Your task to perform on an android device: show emergency info Image 0: 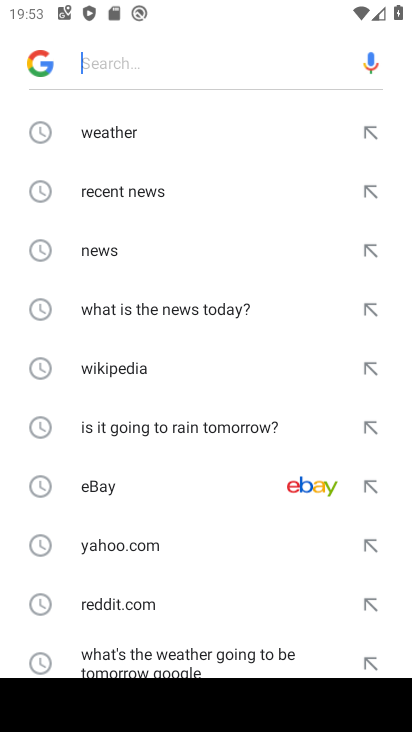
Step 0: press home button
Your task to perform on an android device: show emergency info Image 1: 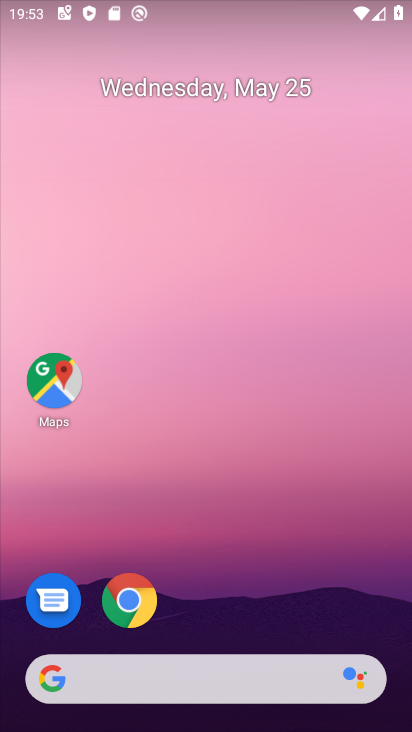
Step 1: drag from (358, 580) to (348, 175)
Your task to perform on an android device: show emergency info Image 2: 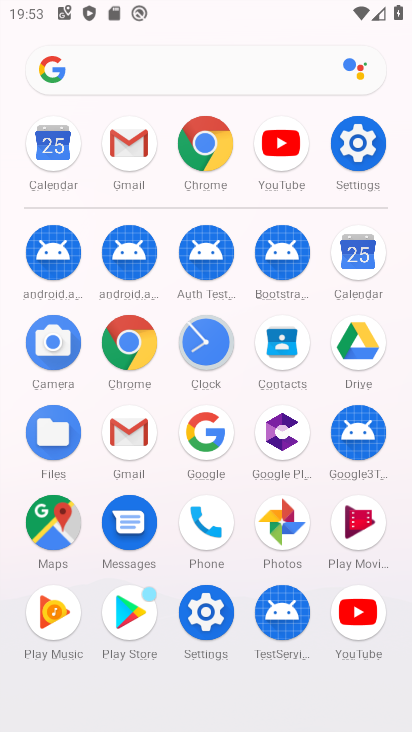
Step 2: click (387, 142)
Your task to perform on an android device: show emergency info Image 3: 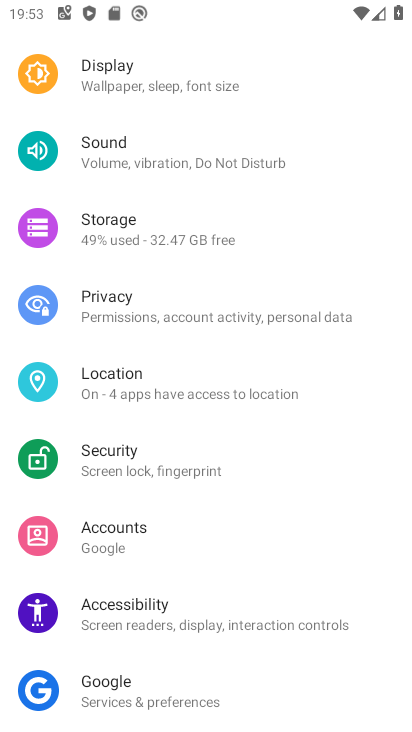
Step 3: drag from (239, 597) to (235, 306)
Your task to perform on an android device: show emergency info Image 4: 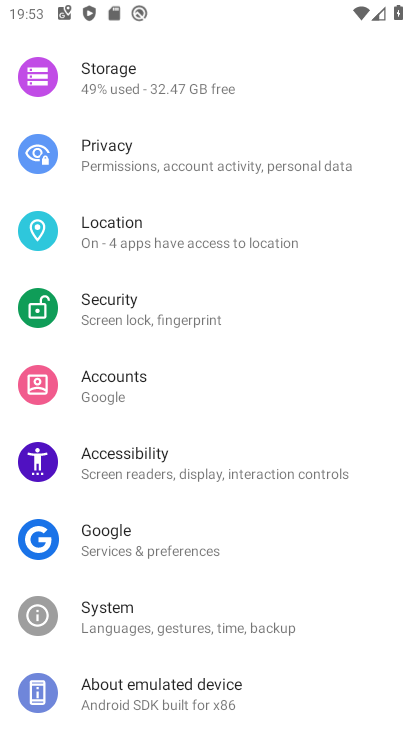
Step 4: drag from (221, 604) to (254, 287)
Your task to perform on an android device: show emergency info Image 5: 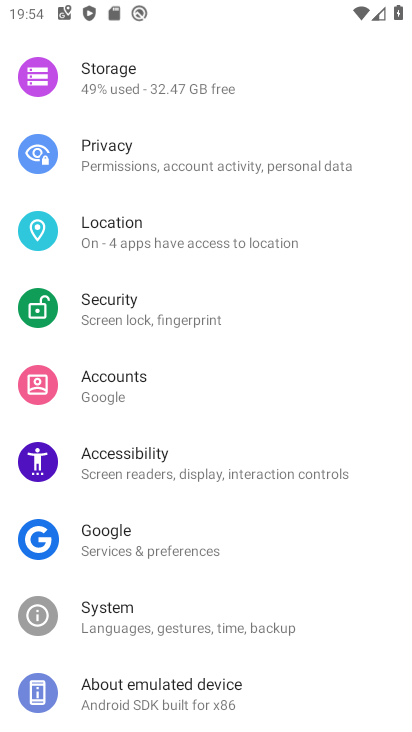
Step 5: click (217, 676)
Your task to perform on an android device: show emergency info Image 6: 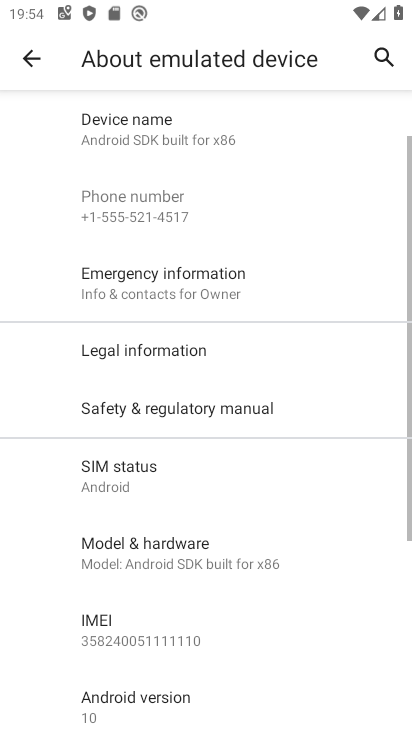
Step 6: click (222, 270)
Your task to perform on an android device: show emergency info Image 7: 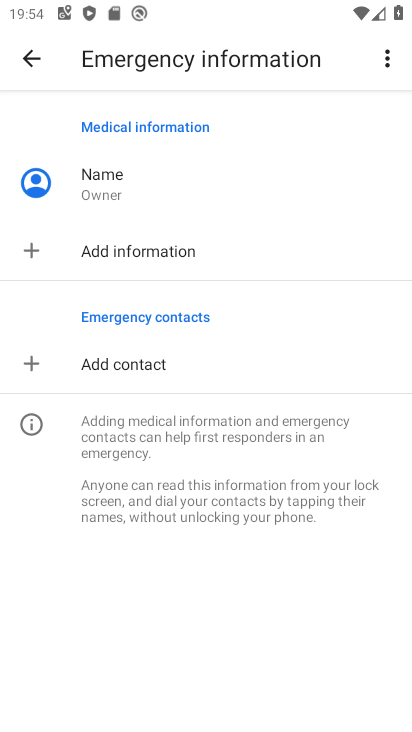
Step 7: task complete